Your task to perform on an android device: star an email in the gmail app Image 0: 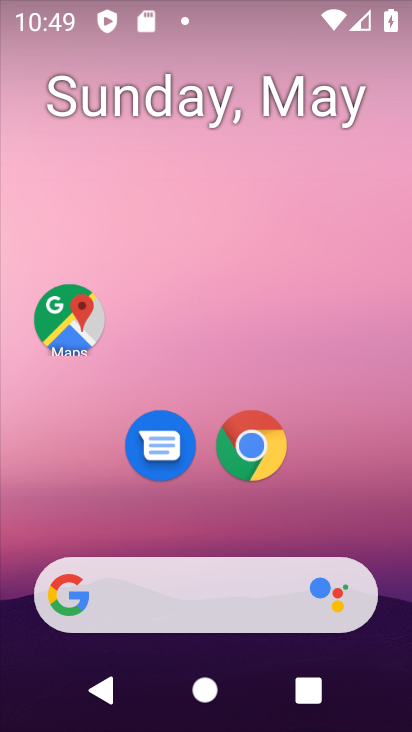
Step 0: drag from (173, 460) to (158, 130)
Your task to perform on an android device: star an email in the gmail app Image 1: 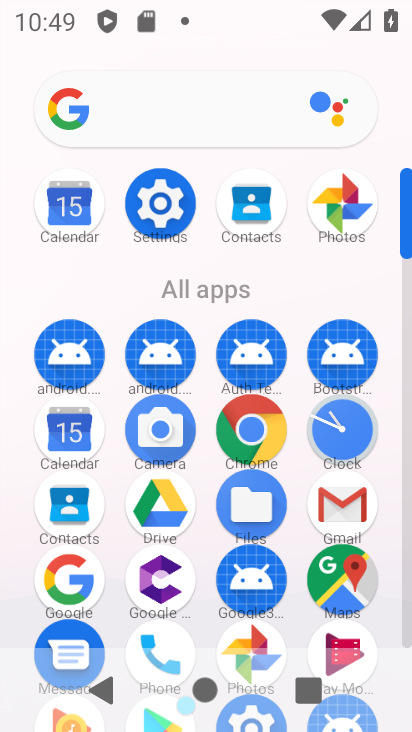
Step 1: click (346, 511)
Your task to perform on an android device: star an email in the gmail app Image 2: 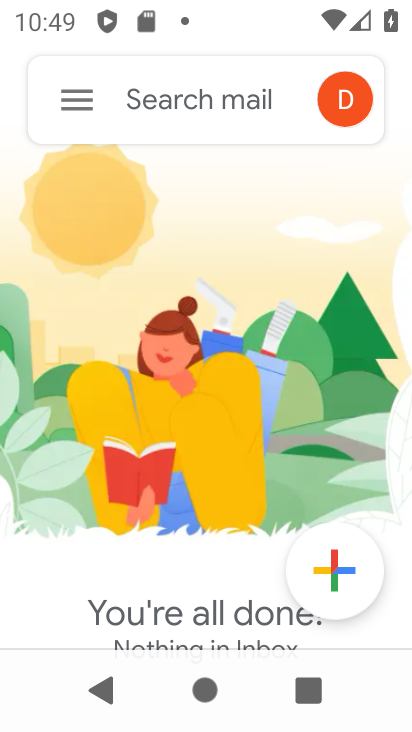
Step 2: click (70, 95)
Your task to perform on an android device: star an email in the gmail app Image 3: 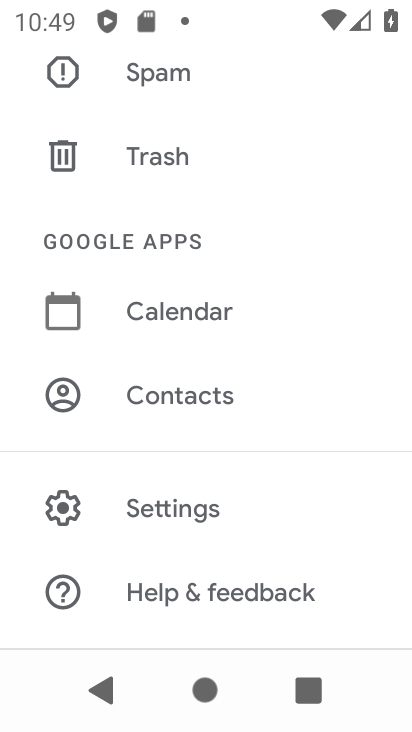
Step 3: drag from (213, 144) to (218, 611)
Your task to perform on an android device: star an email in the gmail app Image 4: 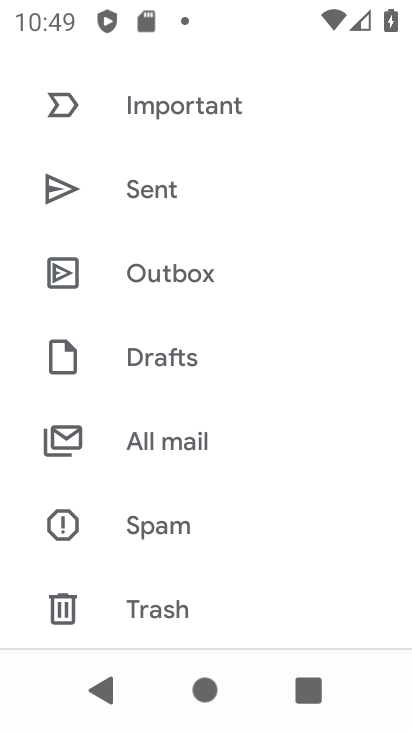
Step 4: click (195, 442)
Your task to perform on an android device: star an email in the gmail app Image 5: 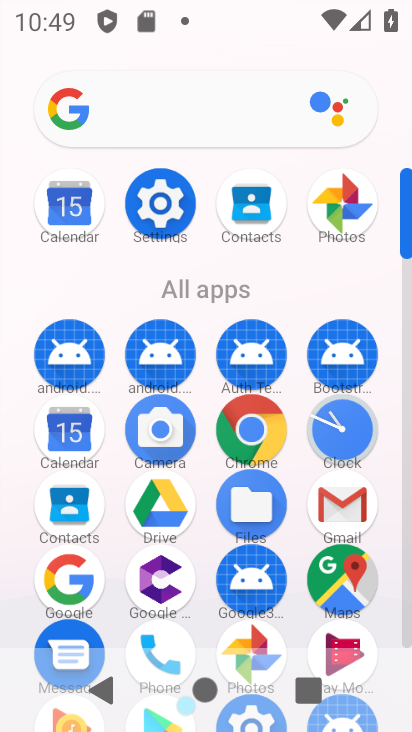
Step 5: task complete